Your task to perform on an android device: Go to location settings Image 0: 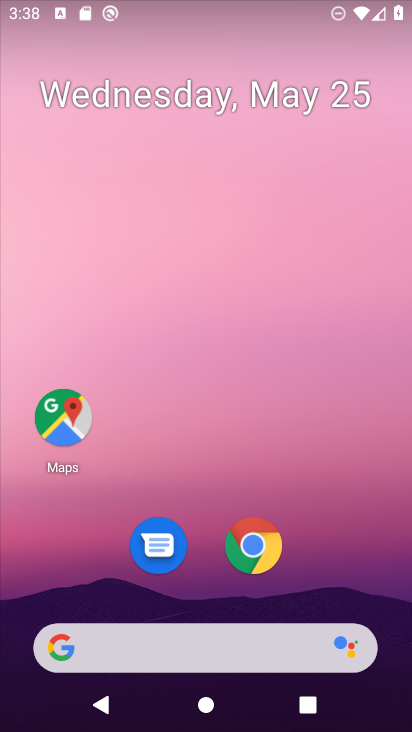
Step 0: drag from (325, 590) to (305, 77)
Your task to perform on an android device: Go to location settings Image 1: 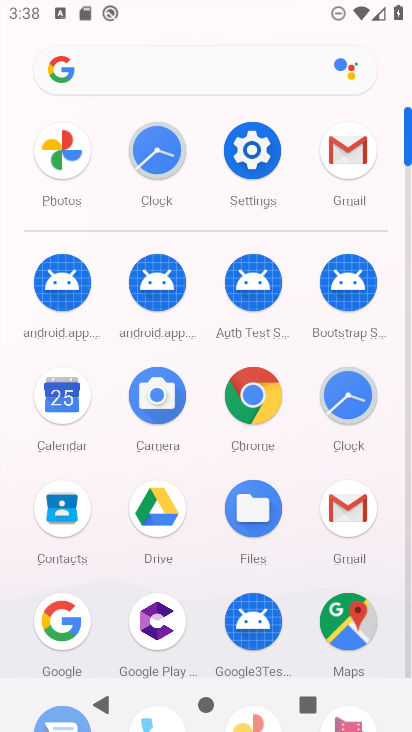
Step 1: click (256, 153)
Your task to perform on an android device: Go to location settings Image 2: 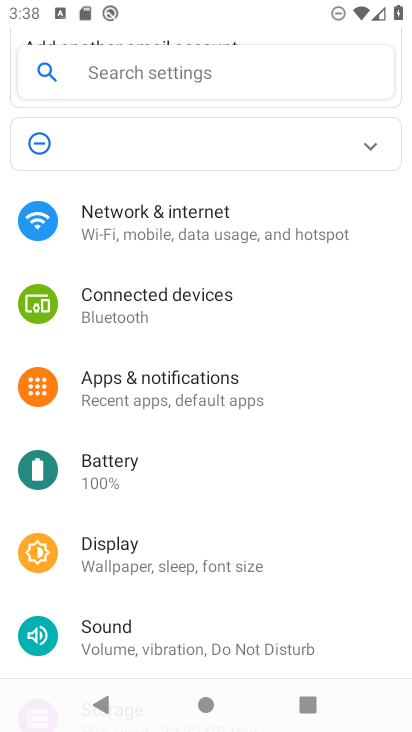
Step 2: drag from (185, 584) to (213, 252)
Your task to perform on an android device: Go to location settings Image 3: 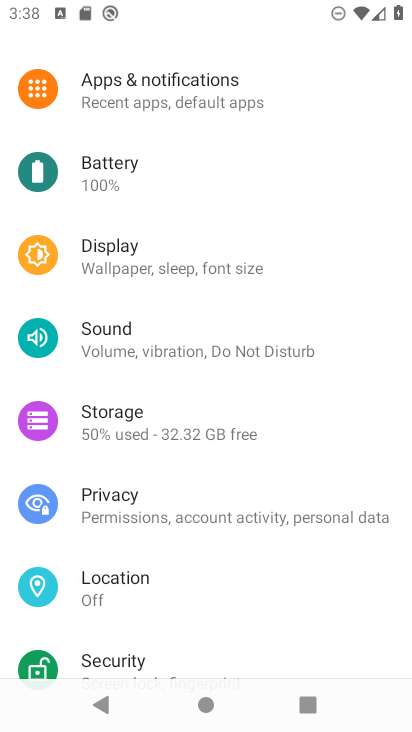
Step 3: click (169, 580)
Your task to perform on an android device: Go to location settings Image 4: 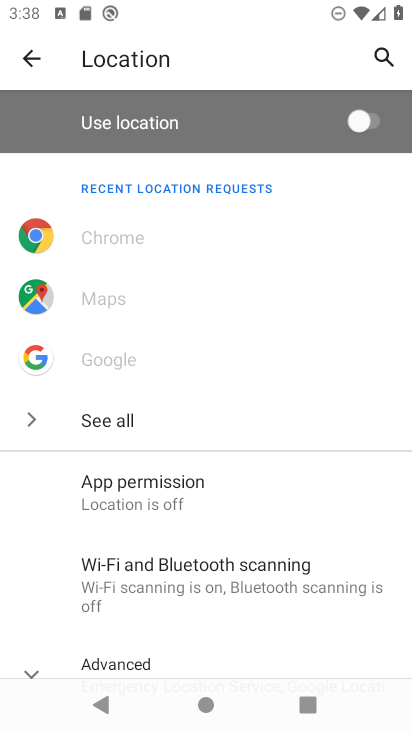
Step 4: click (164, 638)
Your task to perform on an android device: Go to location settings Image 5: 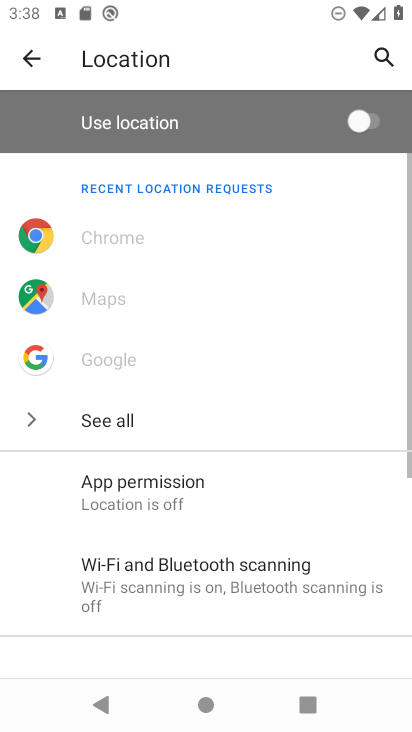
Step 5: click (164, 638)
Your task to perform on an android device: Go to location settings Image 6: 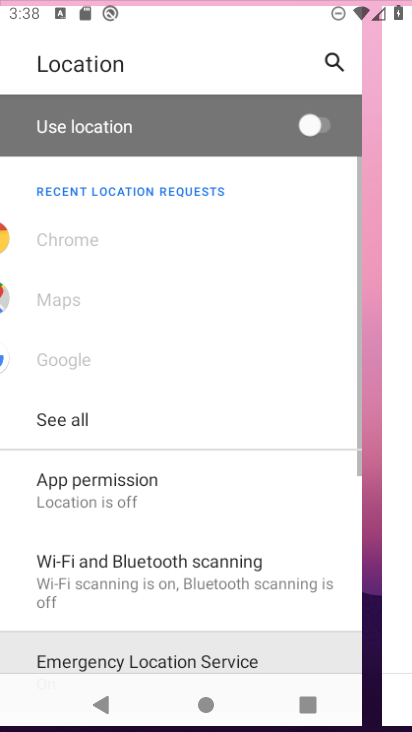
Step 6: task complete